Your task to perform on an android device: Open Google Chrome Image 0: 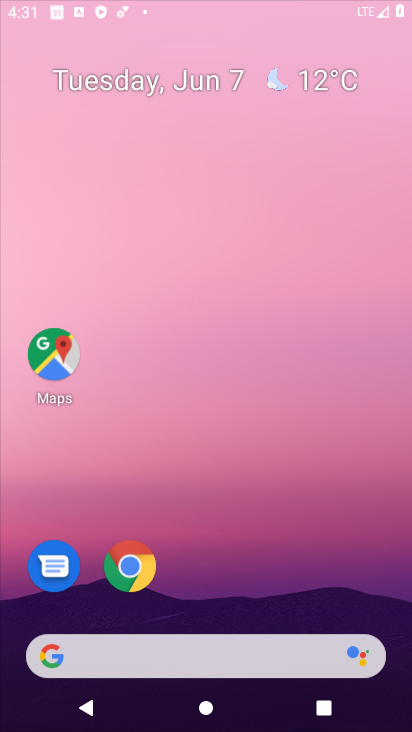
Step 0: click (367, 64)
Your task to perform on an android device: Open Google Chrome Image 1: 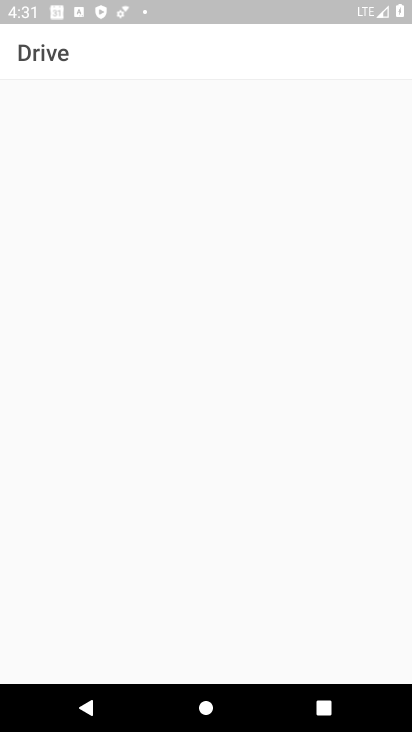
Step 1: press home button
Your task to perform on an android device: Open Google Chrome Image 2: 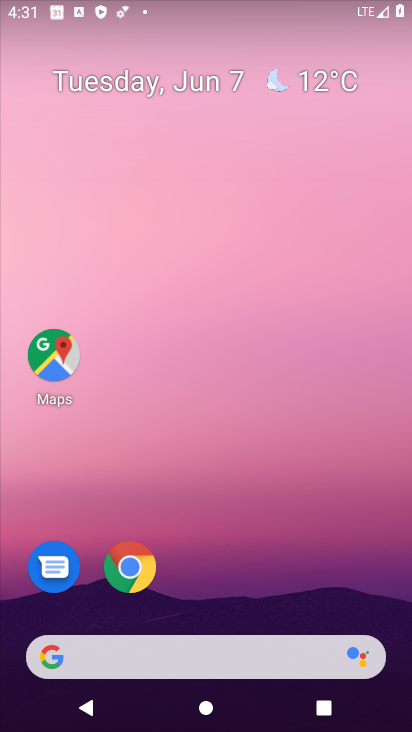
Step 2: drag from (329, 616) to (305, 91)
Your task to perform on an android device: Open Google Chrome Image 3: 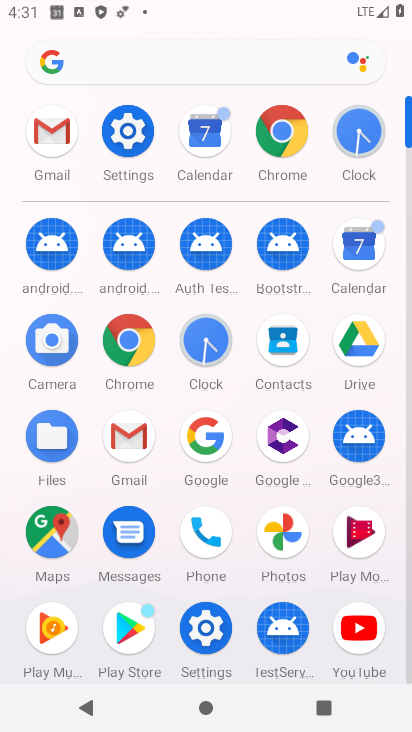
Step 3: click (132, 337)
Your task to perform on an android device: Open Google Chrome Image 4: 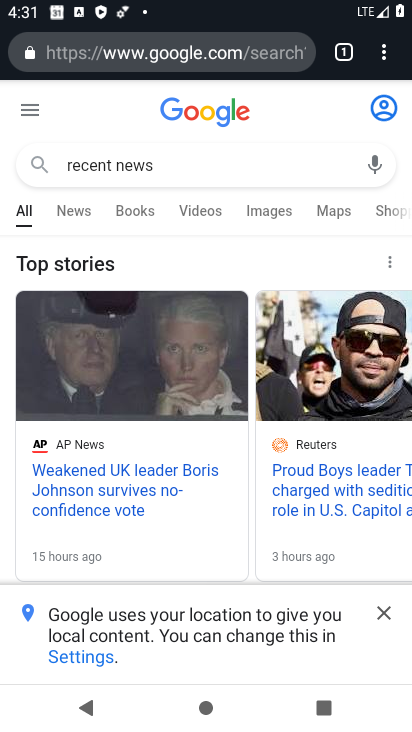
Step 4: task complete